Your task to perform on an android device: make emails show in primary in the gmail app Image 0: 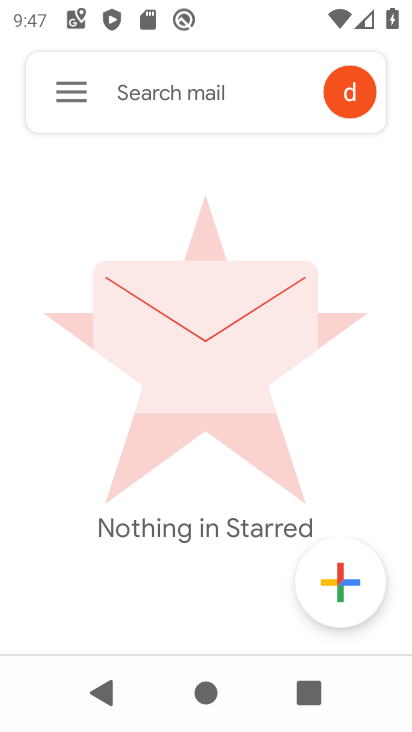
Step 0: click (73, 91)
Your task to perform on an android device: make emails show in primary in the gmail app Image 1: 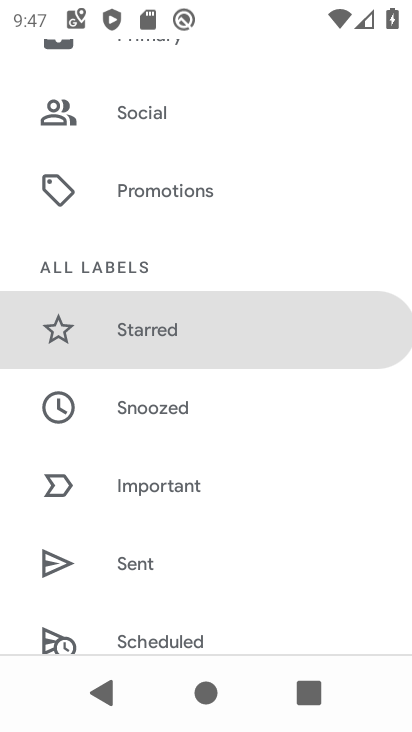
Step 1: drag from (161, 524) to (205, 2)
Your task to perform on an android device: make emails show in primary in the gmail app Image 2: 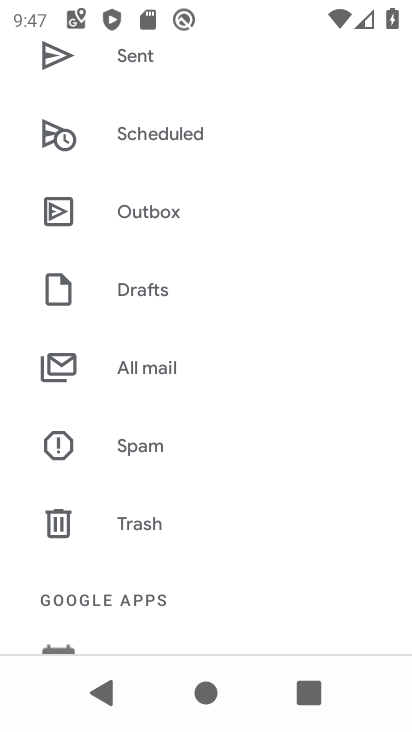
Step 2: drag from (142, 523) to (222, 132)
Your task to perform on an android device: make emails show in primary in the gmail app Image 3: 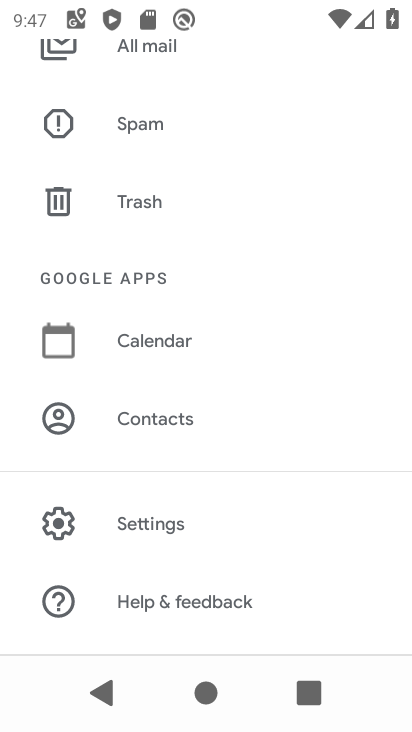
Step 3: click (167, 531)
Your task to perform on an android device: make emails show in primary in the gmail app Image 4: 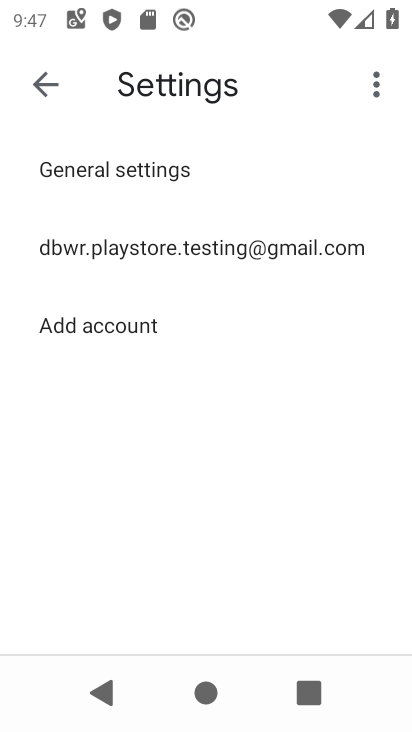
Step 4: click (253, 257)
Your task to perform on an android device: make emails show in primary in the gmail app Image 5: 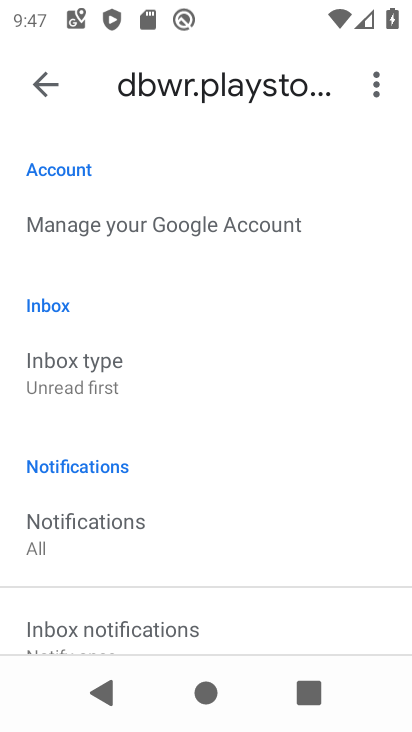
Step 5: click (131, 388)
Your task to perform on an android device: make emails show in primary in the gmail app Image 6: 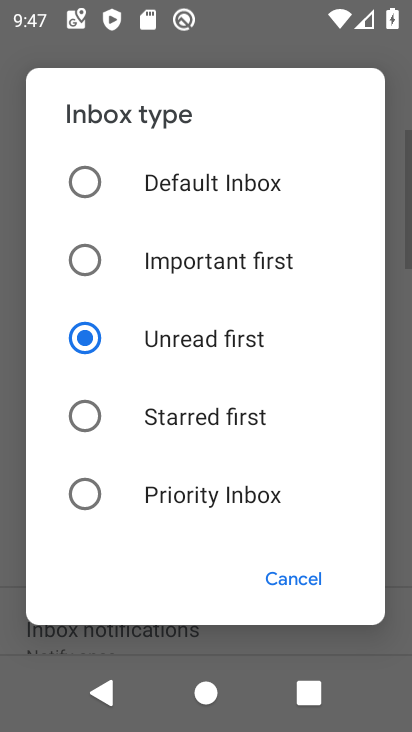
Step 6: click (184, 164)
Your task to perform on an android device: make emails show in primary in the gmail app Image 7: 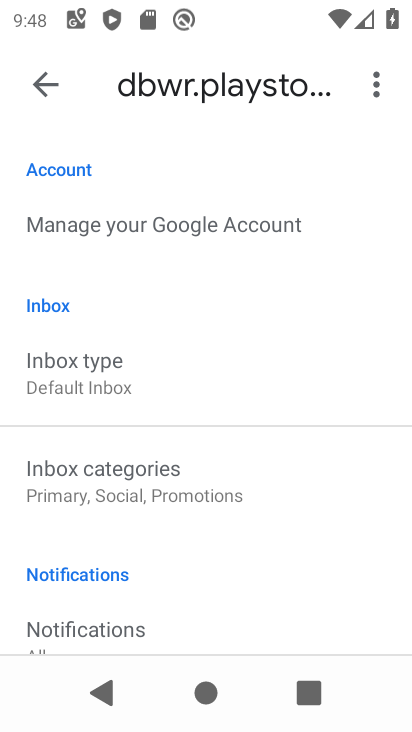
Step 7: task complete